Your task to perform on an android device: add a contact in the contacts app Image 0: 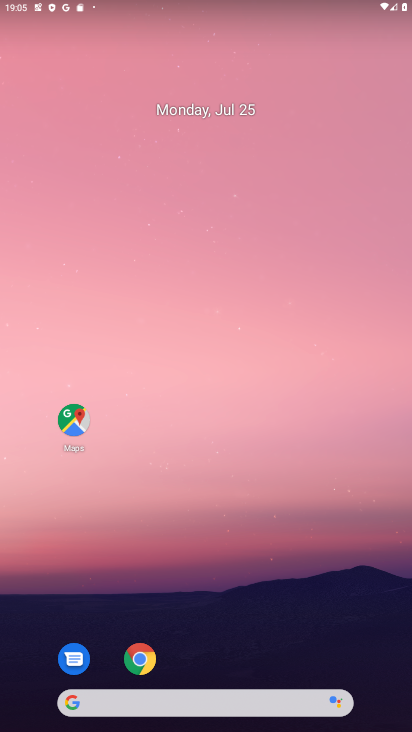
Step 0: drag from (185, 480) to (196, 178)
Your task to perform on an android device: add a contact in the contacts app Image 1: 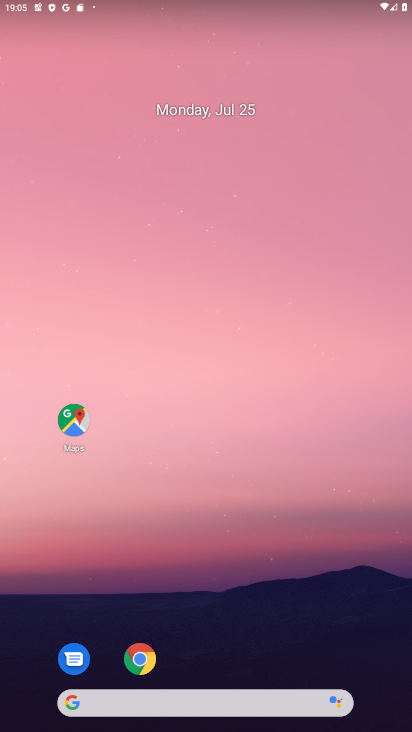
Step 1: click (173, 59)
Your task to perform on an android device: add a contact in the contacts app Image 2: 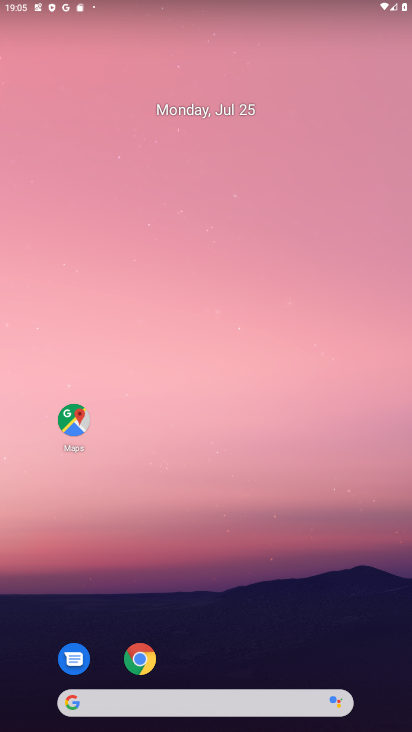
Step 2: drag from (193, 386) to (230, 49)
Your task to perform on an android device: add a contact in the contacts app Image 3: 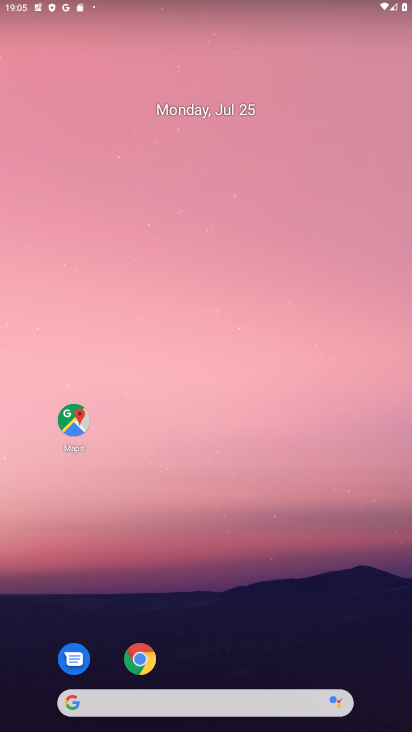
Step 3: drag from (176, 657) to (184, 193)
Your task to perform on an android device: add a contact in the contacts app Image 4: 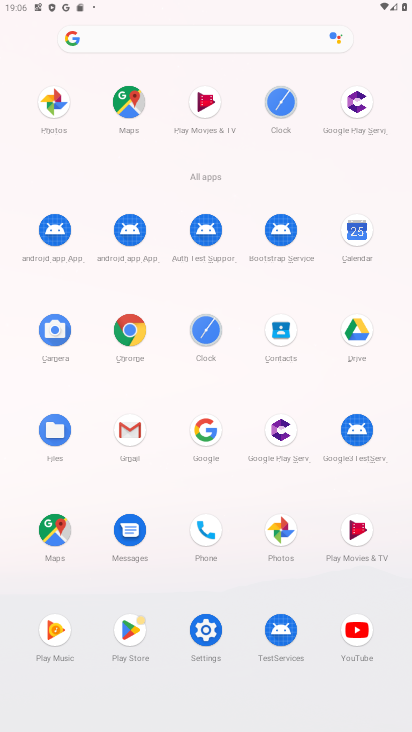
Step 4: click (280, 327)
Your task to perform on an android device: add a contact in the contacts app Image 5: 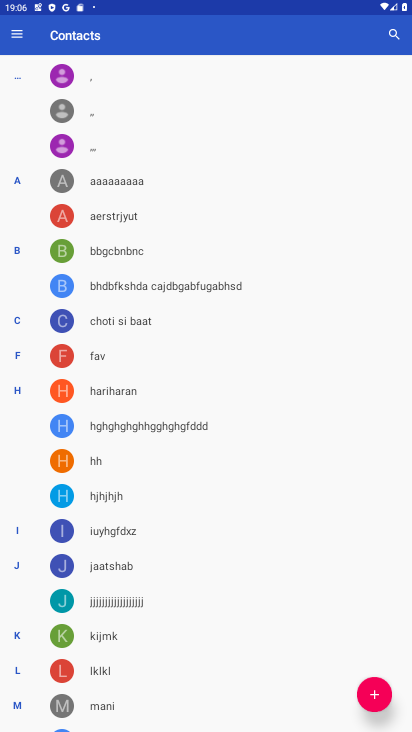
Step 5: click (375, 696)
Your task to perform on an android device: add a contact in the contacts app Image 6: 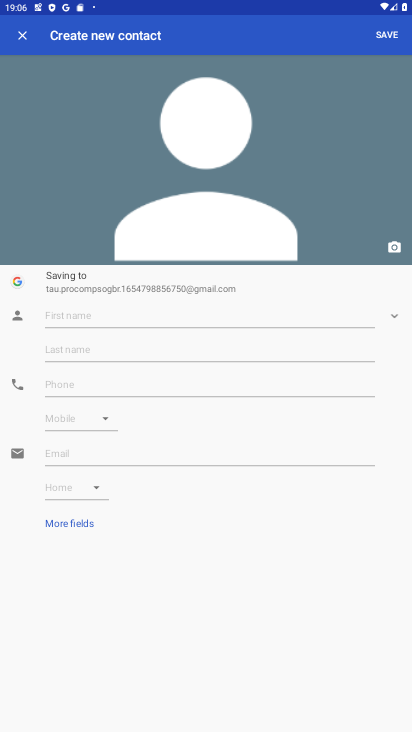
Step 6: click (92, 317)
Your task to perform on an android device: add a contact in the contacts app Image 7: 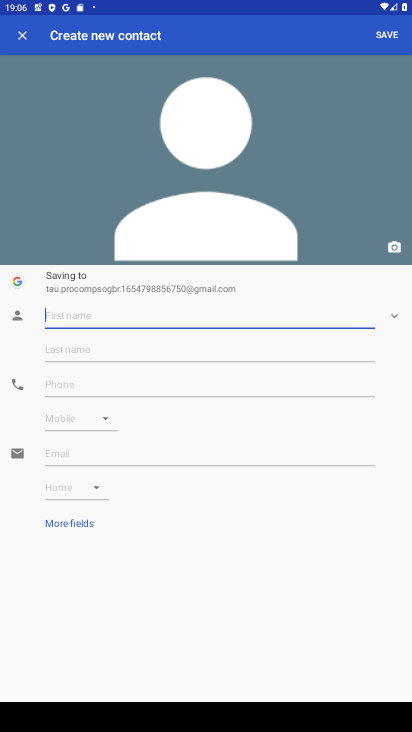
Step 7: type "Namrin"
Your task to perform on an android device: add a contact in the contacts app Image 8: 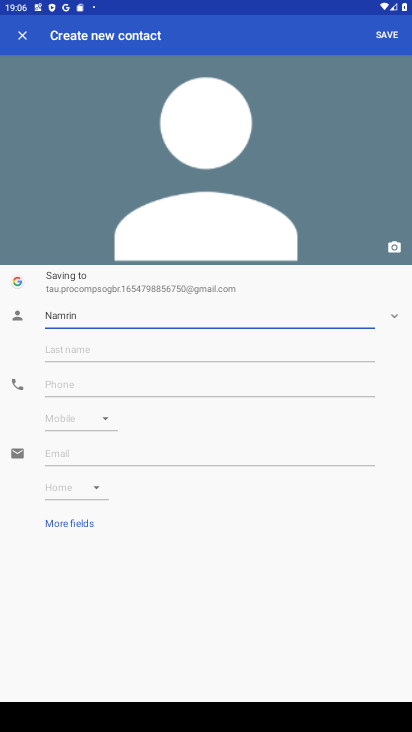
Step 8: click (95, 344)
Your task to perform on an android device: add a contact in the contacts app Image 9: 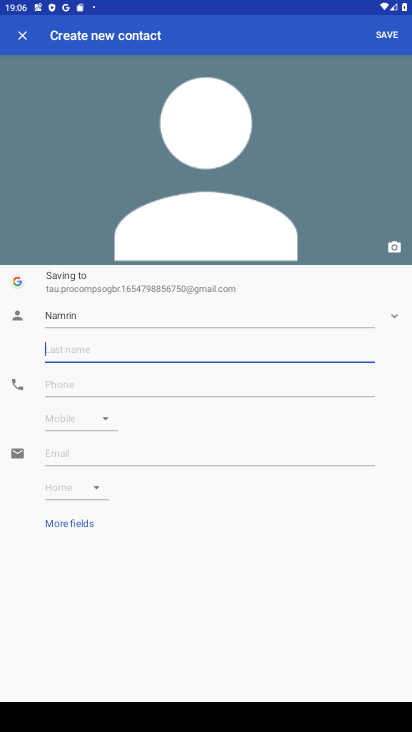
Step 9: type "Shah"
Your task to perform on an android device: add a contact in the contacts app Image 10: 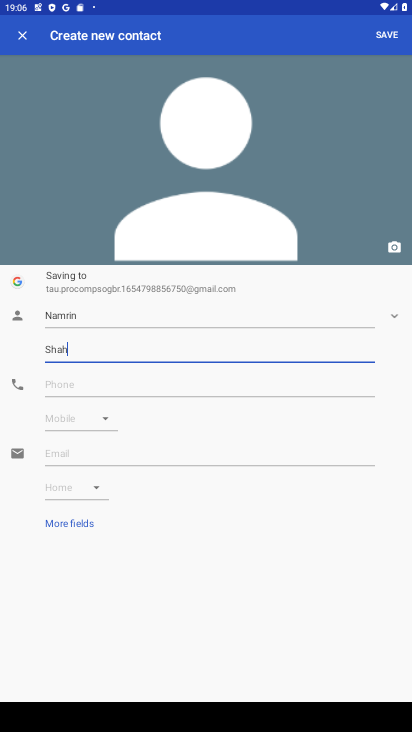
Step 10: click (190, 385)
Your task to perform on an android device: add a contact in the contacts app Image 11: 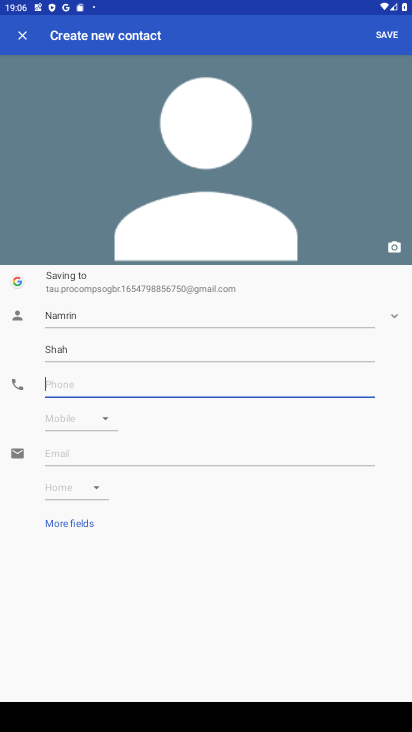
Step 11: type "7887788788"
Your task to perform on an android device: add a contact in the contacts app Image 12: 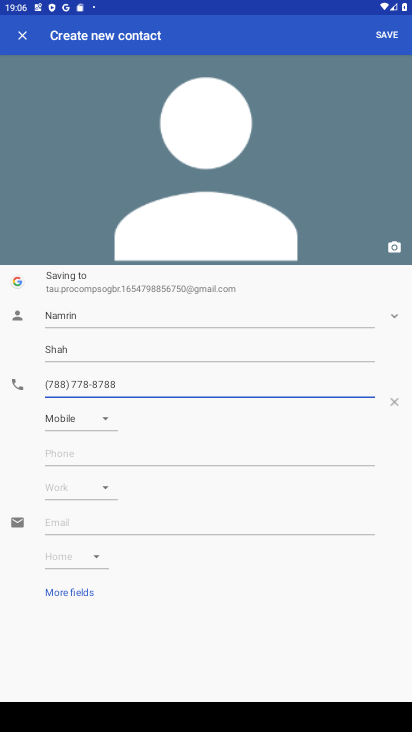
Step 12: click (386, 31)
Your task to perform on an android device: add a contact in the contacts app Image 13: 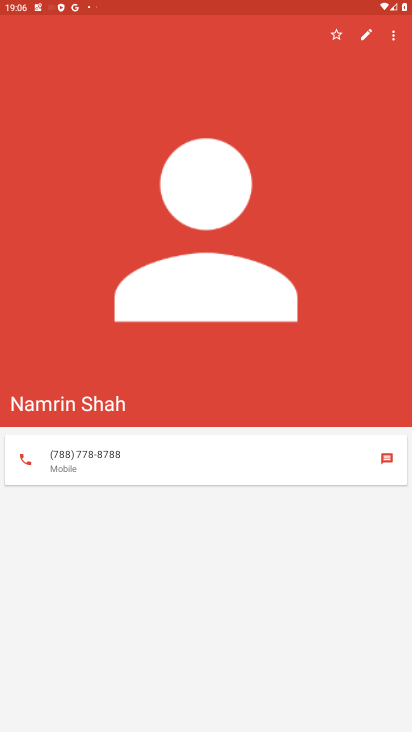
Step 13: task complete